Your task to perform on an android device: Go to ESPN.com Image 0: 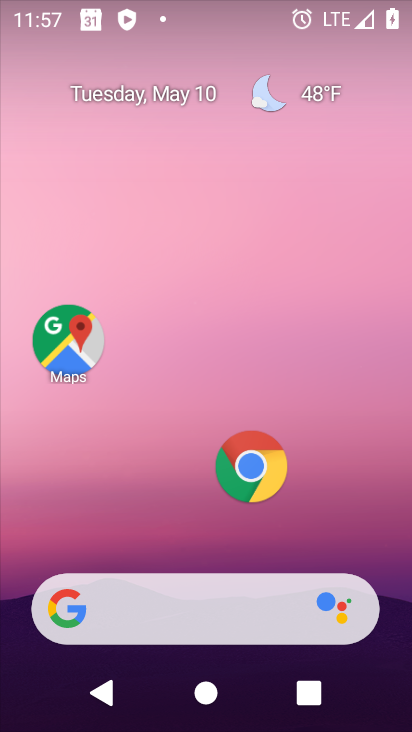
Step 0: click (260, 462)
Your task to perform on an android device: Go to ESPN.com Image 1: 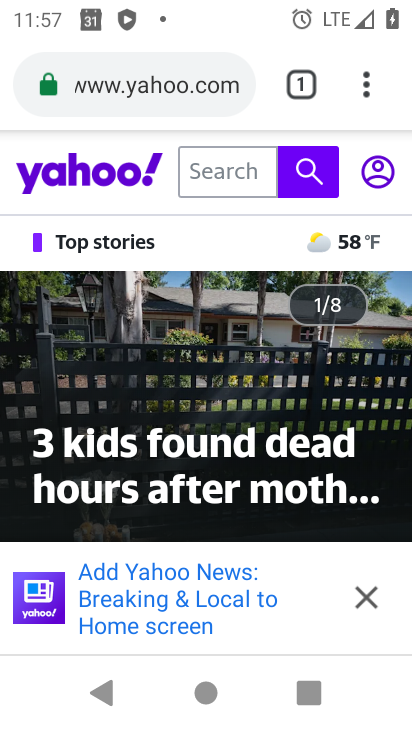
Step 1: click (300, 79)
Your task to perform on an android device: Go to ESPN.com Image 2: 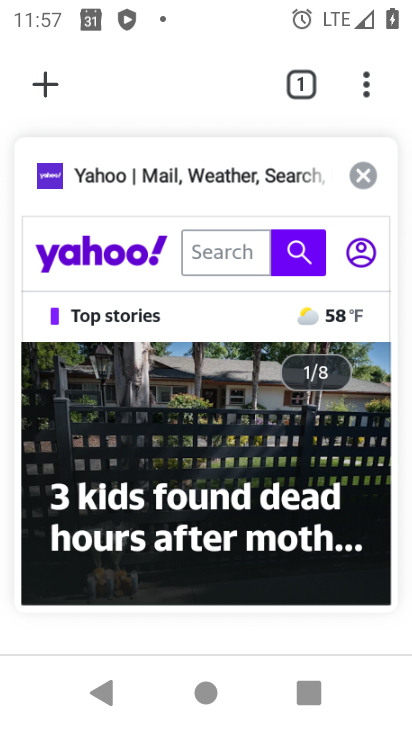
Step 2: click (35, 74)
Your task to perform on an android device: Go to ESPN.com Image 3: 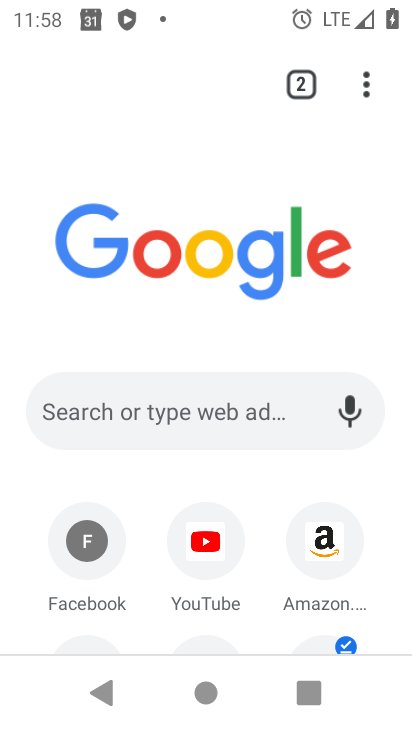
Step 3: drag from (244, 591) to (288, 184)
Your task to perform on an android device: Go to ESPN.com Image 4: 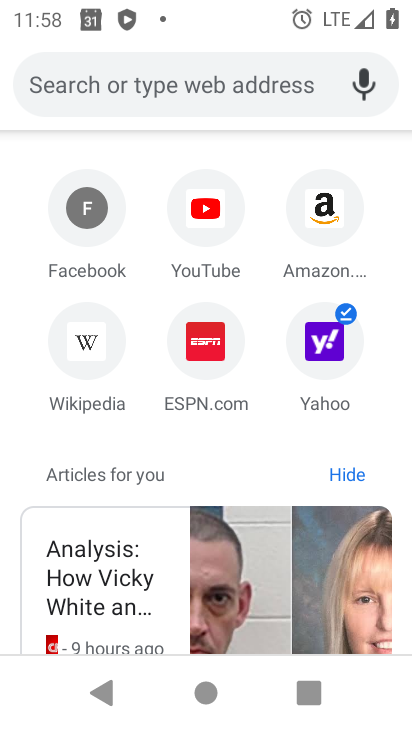
Step 4: click (205, 346)
Your task to perform on an android device: Go to ESPN.com Image 5: 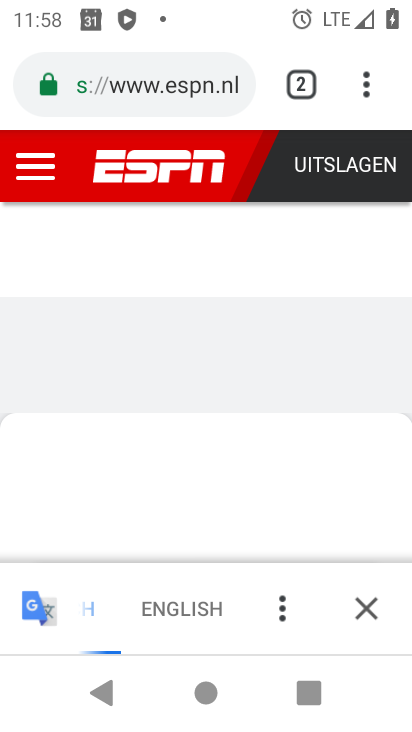
Step 5: task complete